Your task to perform on an android device: open a bookmark in the chrome app Image 0: 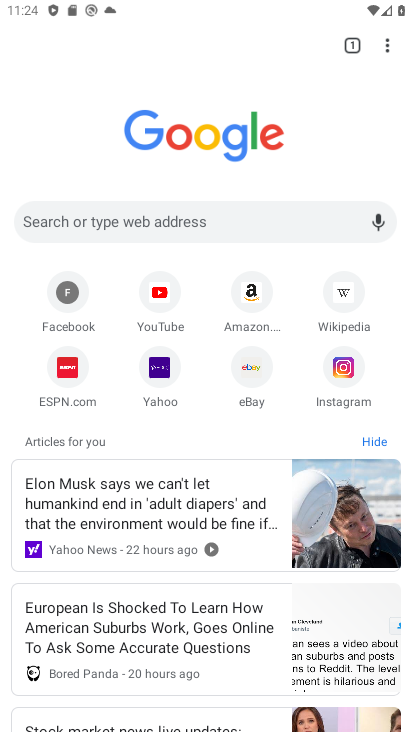
Step 0: press home button
Your task to perform on an android device: open a bookmark in the chrome app Image 1: 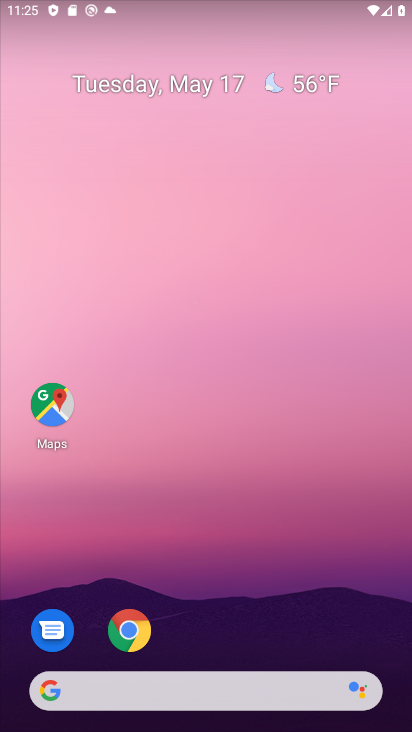
Step 1: drag from (265, 589) to (286, 114)
Your task to perform on an android device: open a bookmark in the chrome app Image 2: 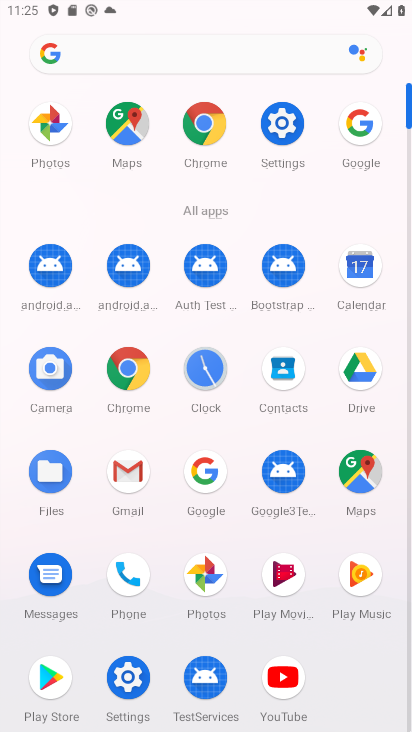
Step 2: click (117, 369)
Your task to perform on an android device: open a bookmark in the chrome app Image 3: 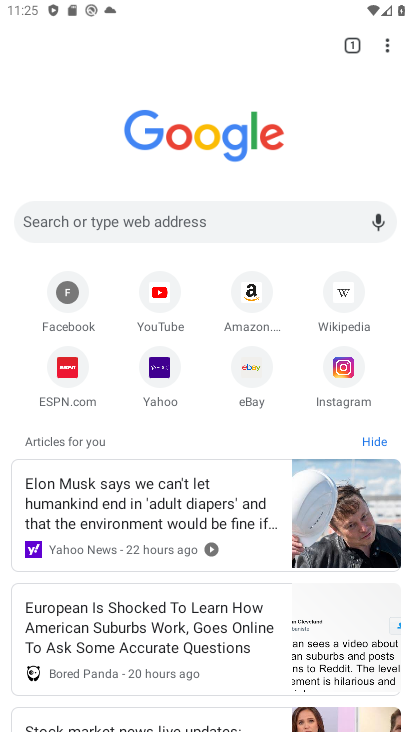
Step 3: task complete